Your task to perform on an android device: show emergency info Image 0: 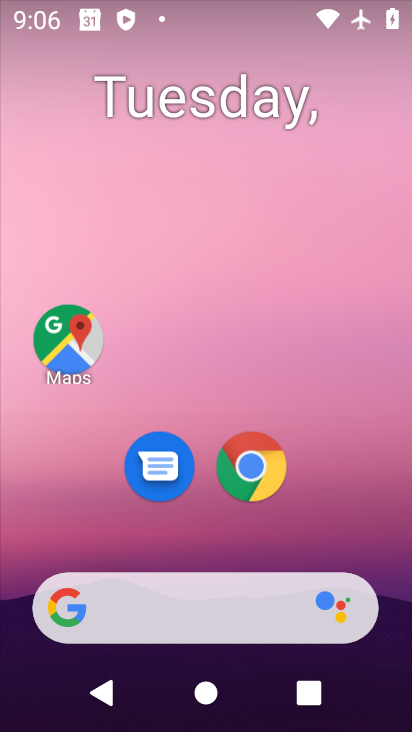
Step 0: drag from (383, 532) to (305, 77)
Your task to perform on an android device: show emergency info Image 1: 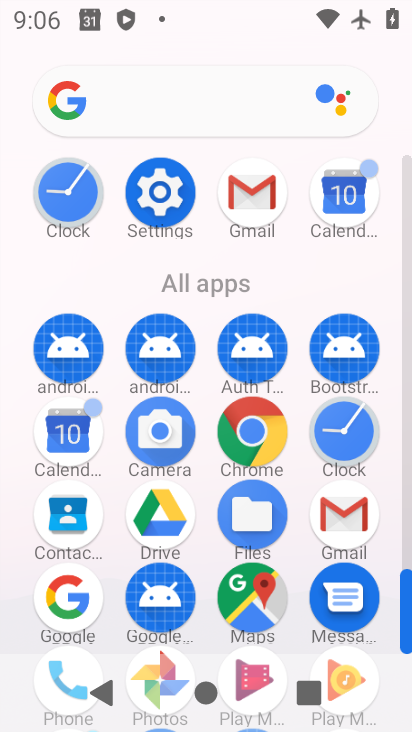
Step 1: click (167, 180)
Your task to perform on an android device: show emergency info Image 2: 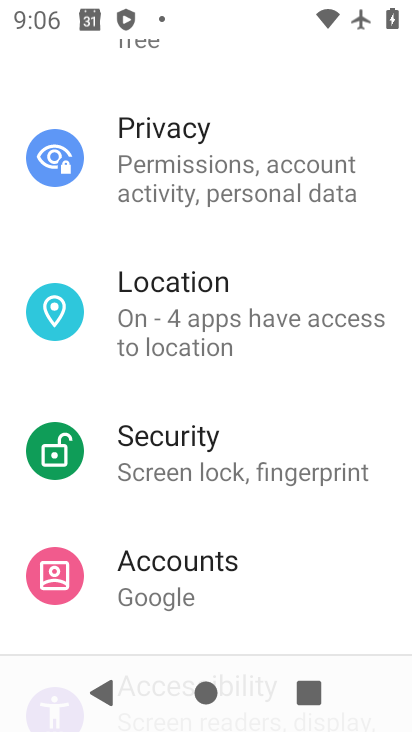
Step 2: drag from (270, 590) to (268, 46)
Your task to perform on an android device: show emergency info Image 3: 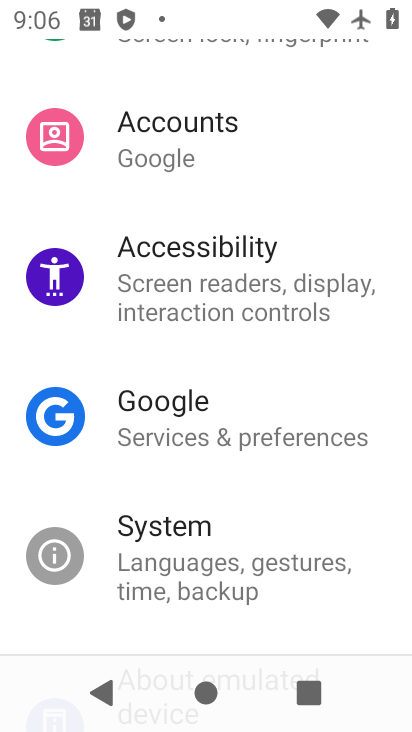
Step 3: drag from (202, 508) to (221, 75)
Your task to perform on an android device: show emergency info Image 4: 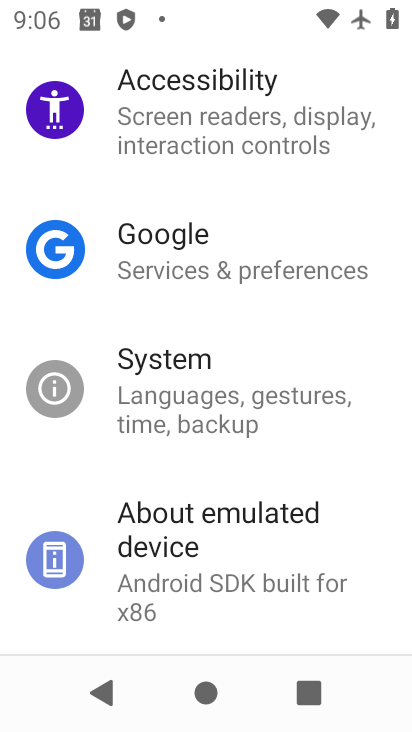
Step 4: drag from (190, 604) to (216, 243)
Your task to perform on an android device: show emergency info Image 5: 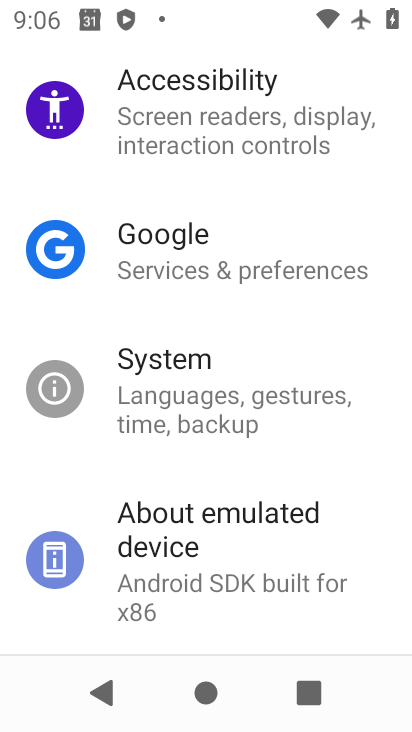
Step 5: click (139, 565)
Your task to perform on an android device: show emergency info Image 6: 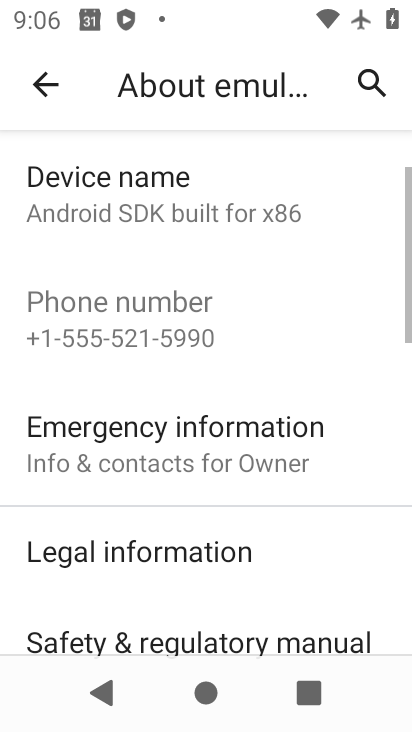
Step 6: click (163, 445)
Your task to perform on an android device: show emergency info Image 7: 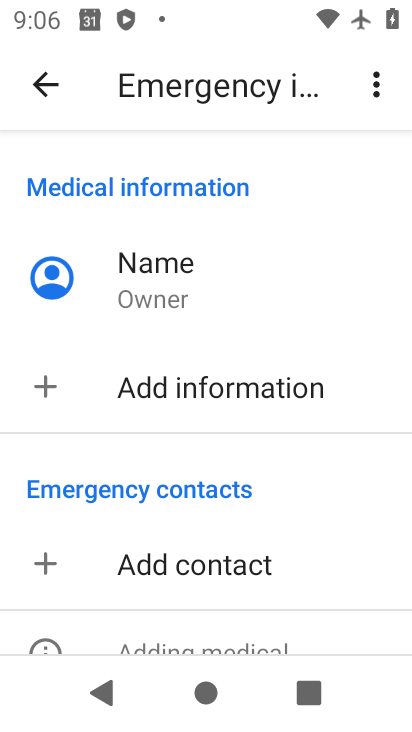
Step 7: task complete